Your task to perform on an android device: How much does a 2 bedroom apartment rent for in Boston? Image 0: 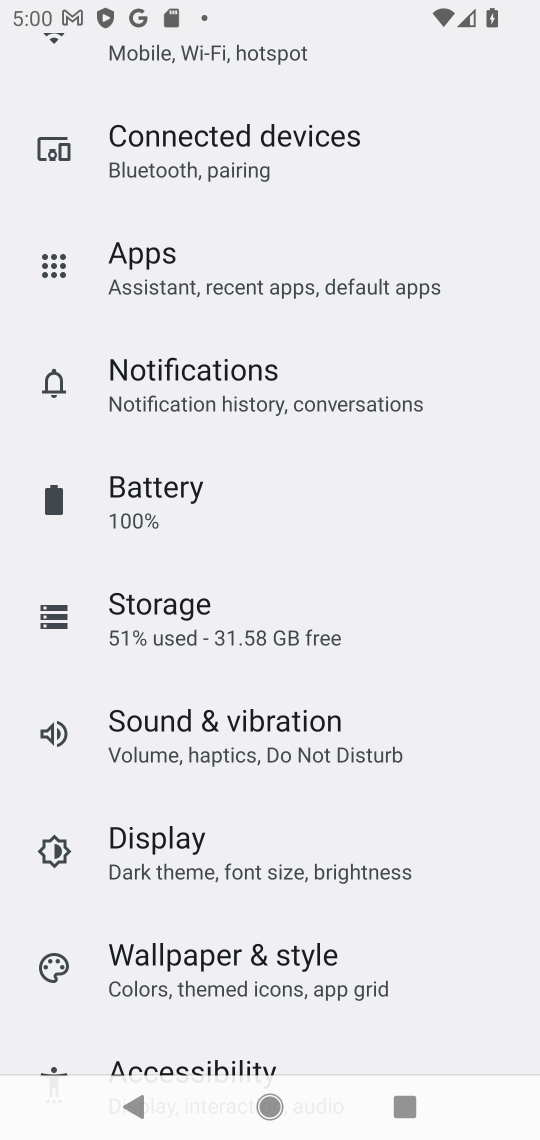
Step 0: press home button
Your task to perform on an android device: How much does a 2 bedroom apartment rent for in Boston? Image 1: 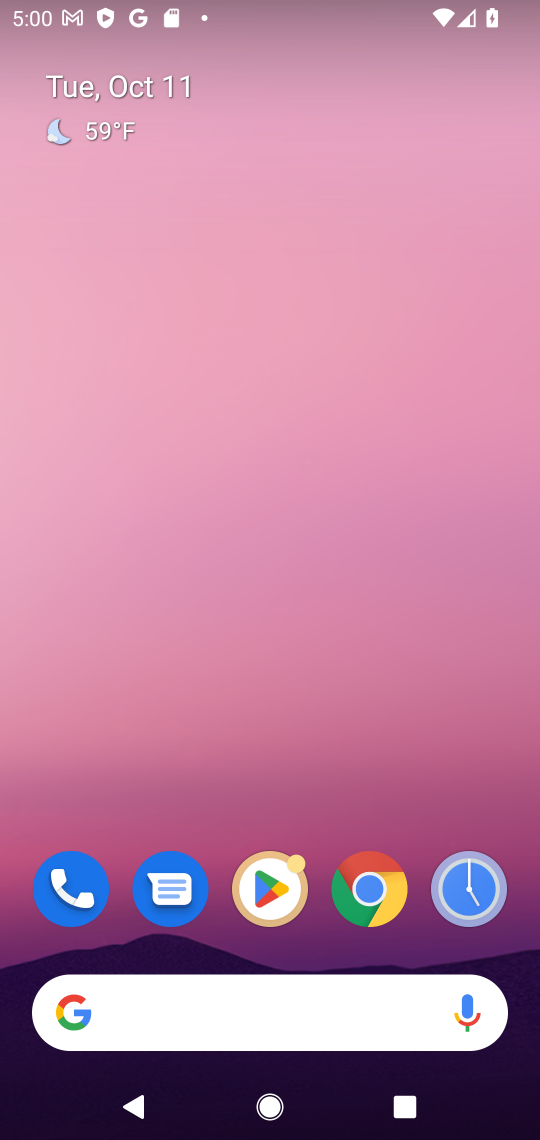
Step 1: click (226, 427)
Your task to perform on an android device: How much does a 2 bedroom apartment rent for in Boston? Image 2: 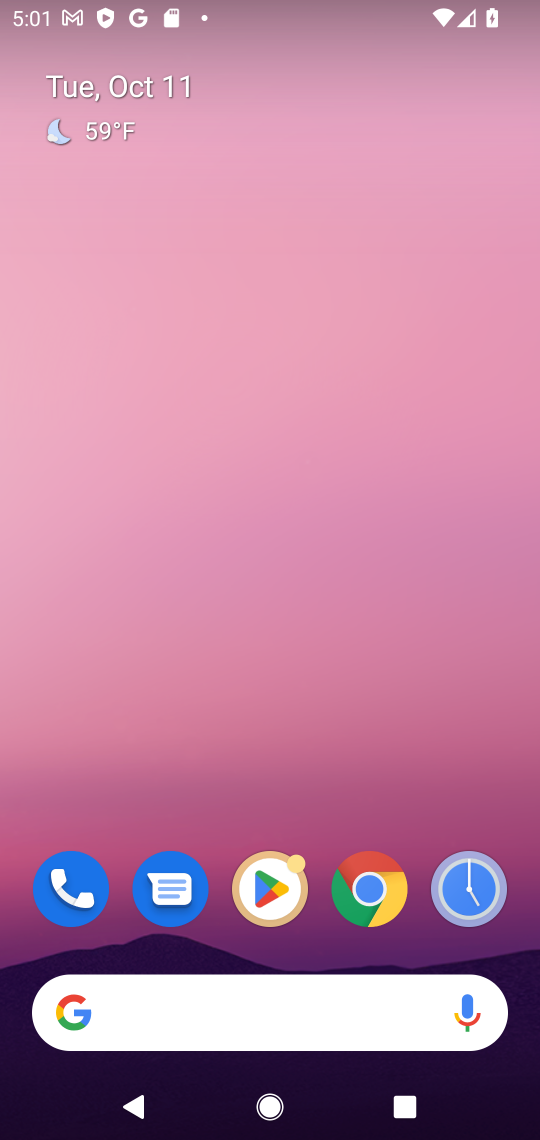
Step 2: click (222, 518)
Your task to perform on an android device: How much does a 2 bedroom apartment rent for in Boston? Image 3: 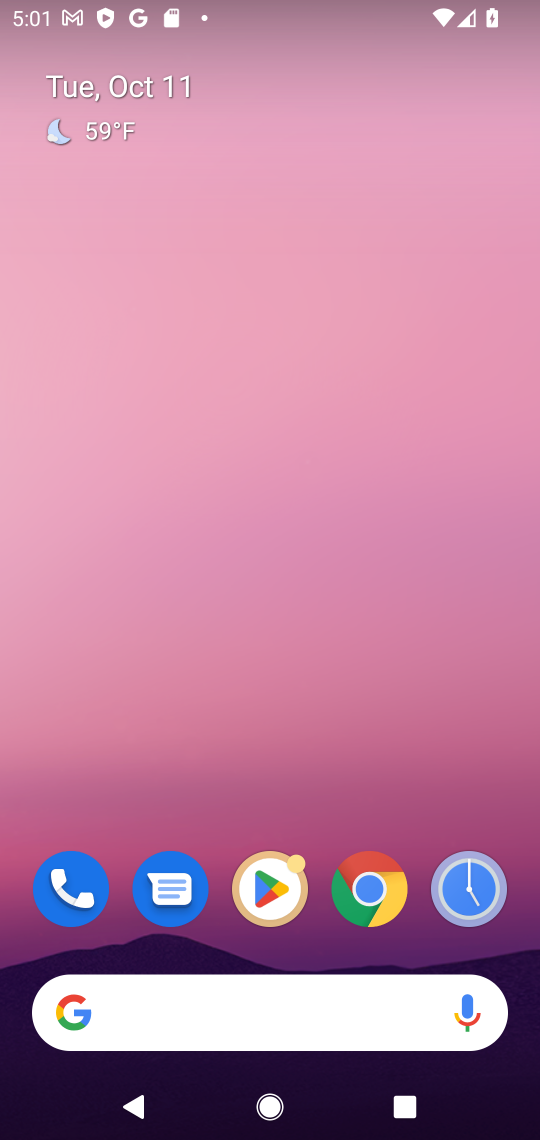
Step 3: drag from (246, 867) to (246, 545)
Your task to perform on an android device: How much does a 2 bedroom apartment rent for in Boston? Image 4: 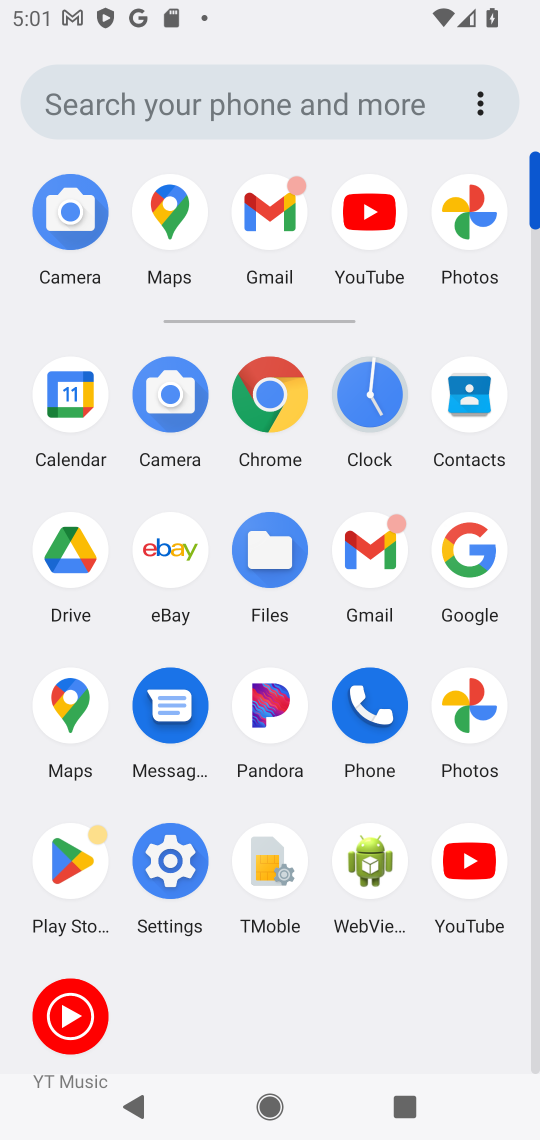
Step 4: click (460, 542)
Your task to perform on an android device: How much does a 2 bedroom apartment rent for in Boston? Image 5: 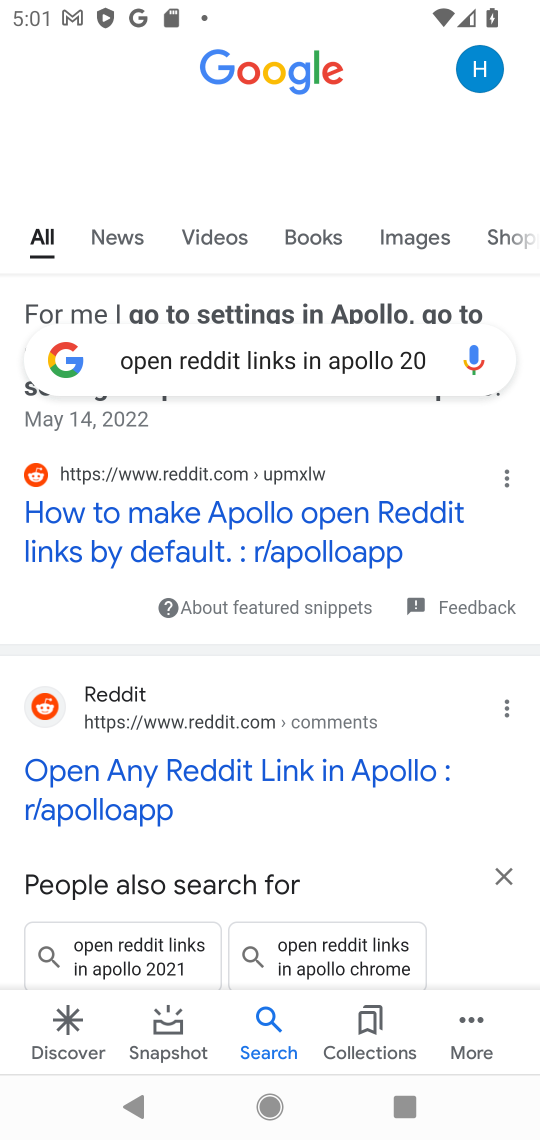
Step 5: click (254, 355)
Your task to perform on an android device: How much does a 2 bedroom apartment rent for in Boston? Image 6: 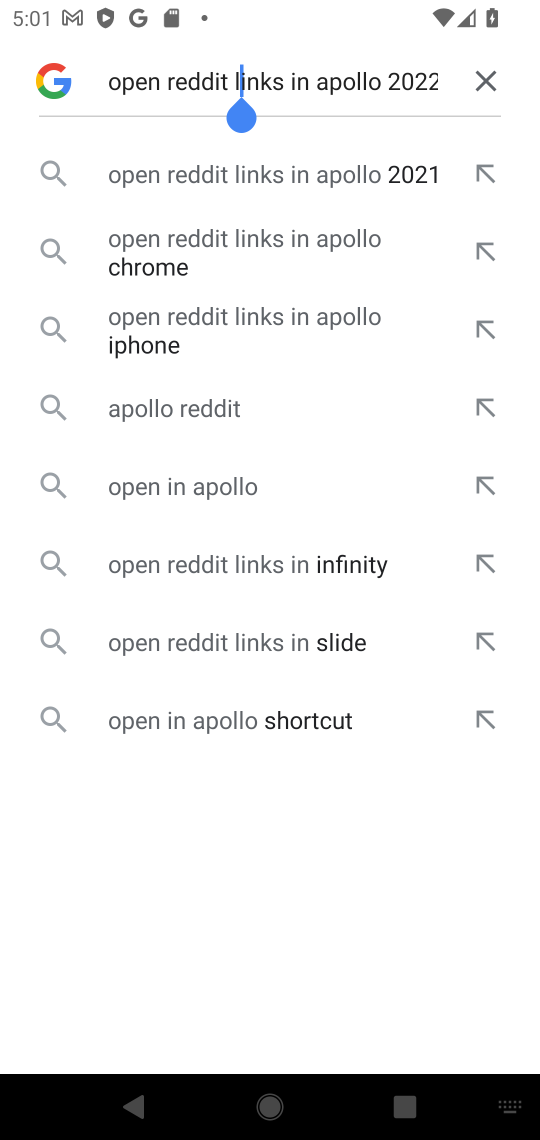
Step 6: click (479, 67)
Your task to perform on an android device: How much does a 2 bedroom apartment rent for in Boston? Image 7: 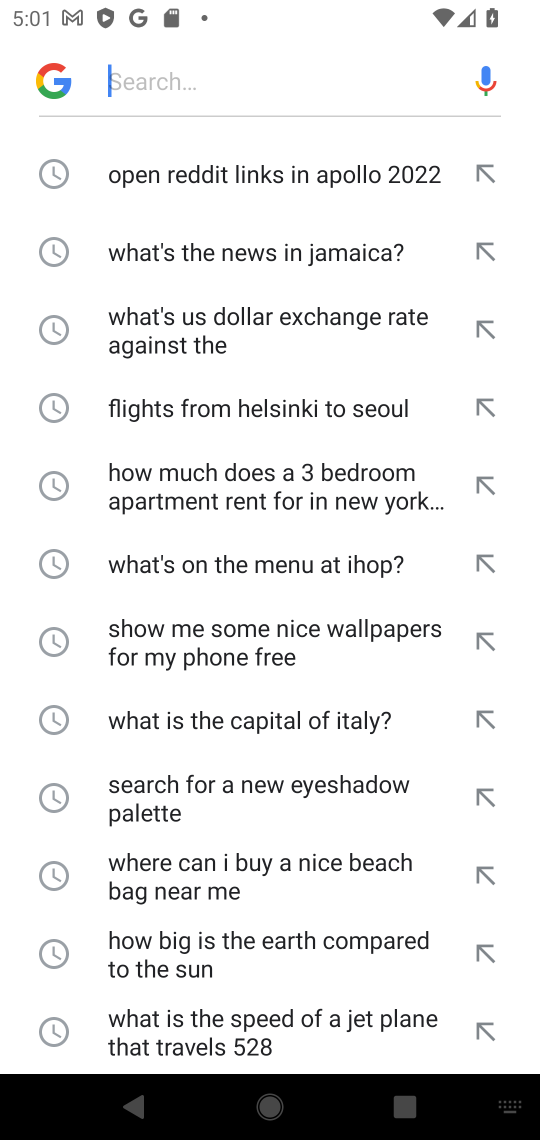
Step 7: click (276, 64)
Your task to perform on an android device: How much does a 2 bedroom apartment rent for in Boston? Image 8: 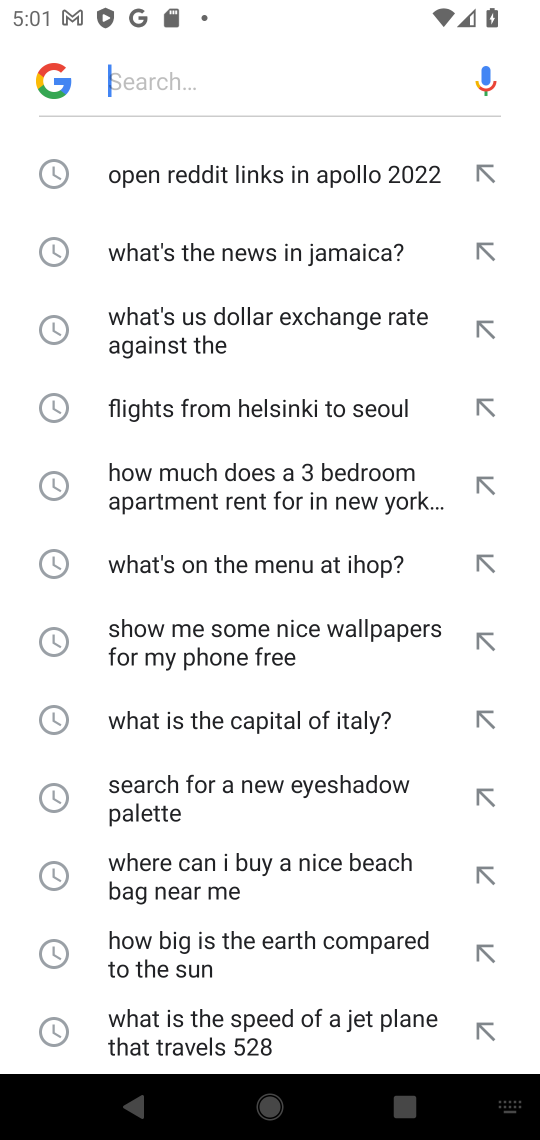
Step 8: type "How much does a 2 bedroom apartment rent for in Boston? "
Your task to perform on an android device: How much does a 2 bedroom apartment rent for in Boston? Image 9: 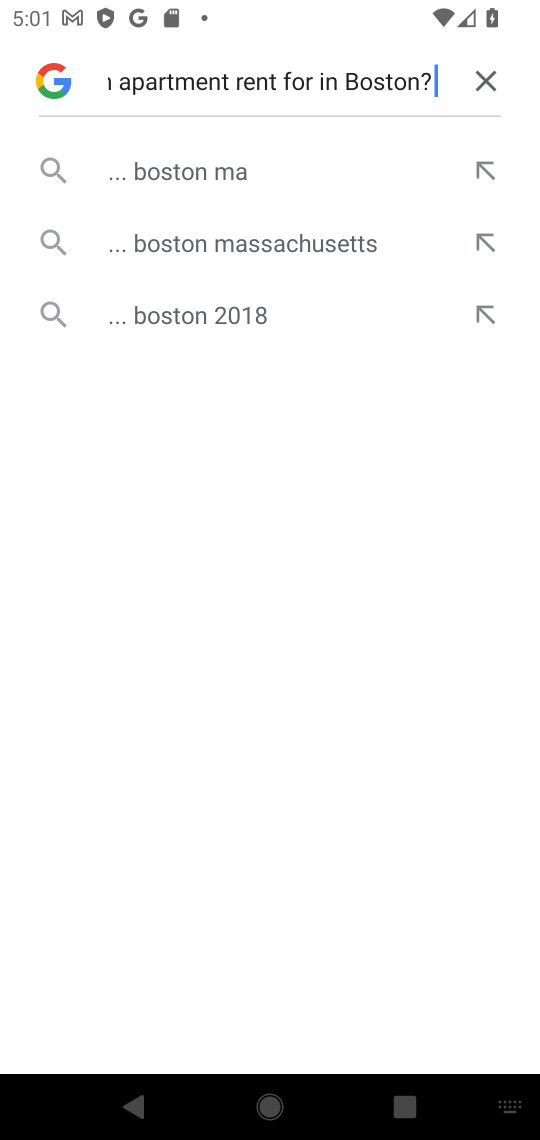
Step 9: click (182, 161)
Your task to perform on an android device: How much does a 2 bedroom apartment rent for in Boston? Image 10: 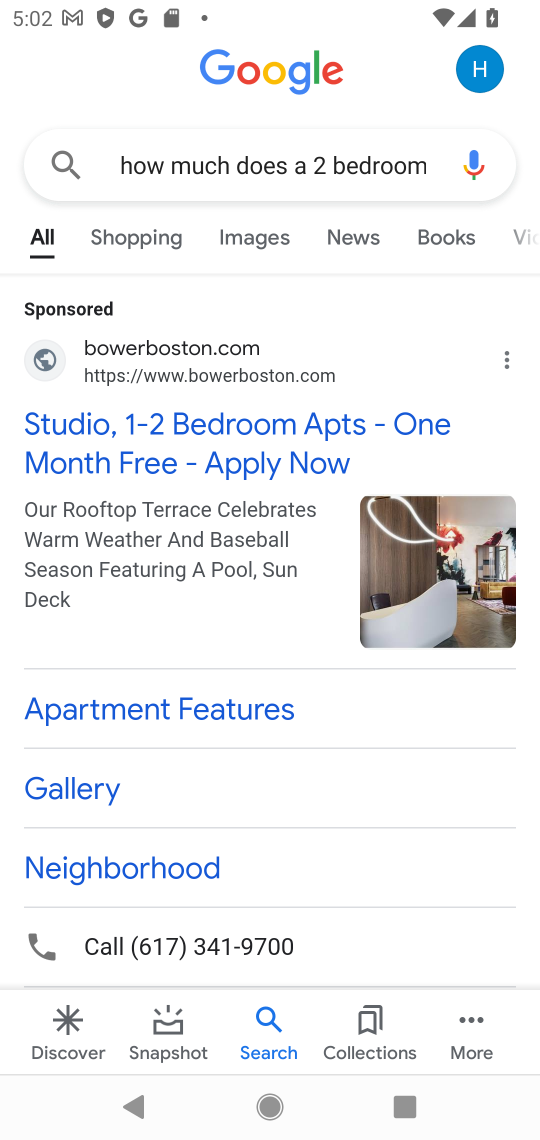
Step 10: click (235, 422)
Your task to perform on an android device: How much does a 2 bedroom apartment rent for in Boston? Image 11: 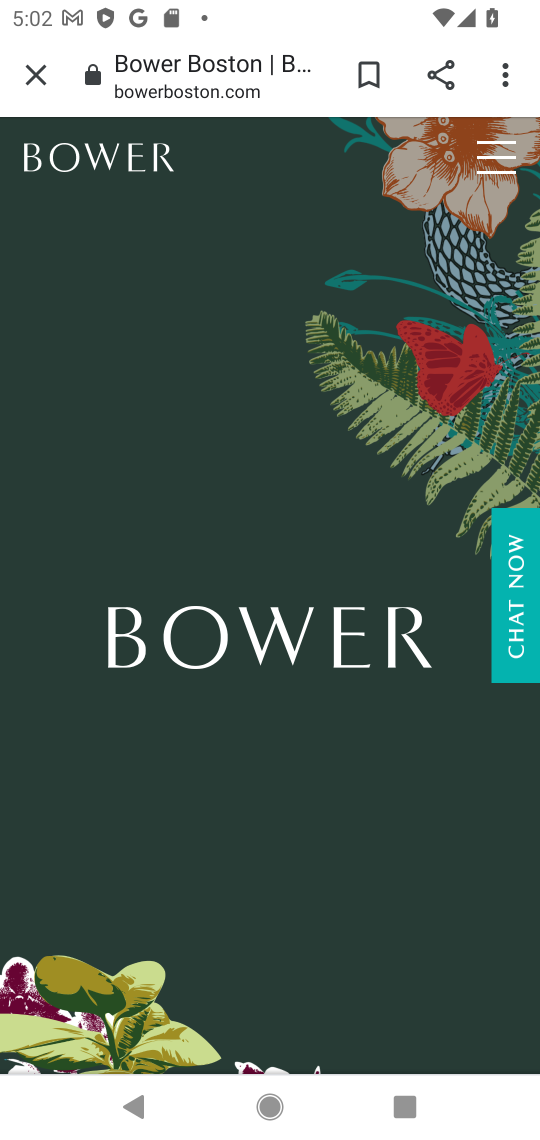
Step 11: task complete